Your task to perform on an android device: Open the web browser Image 0: 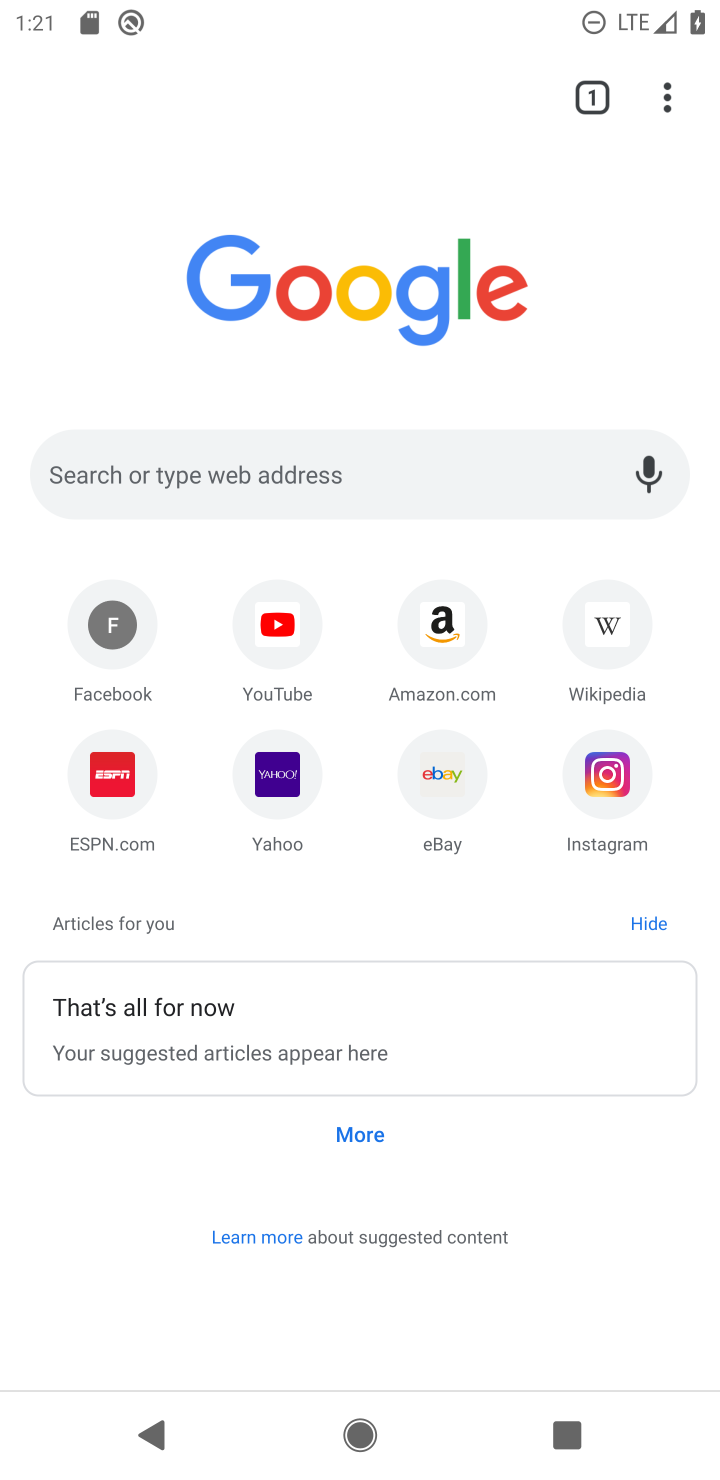
Step 0: click (641, 1217)
Your task to perform on an android device: Open the web browser Image 1: 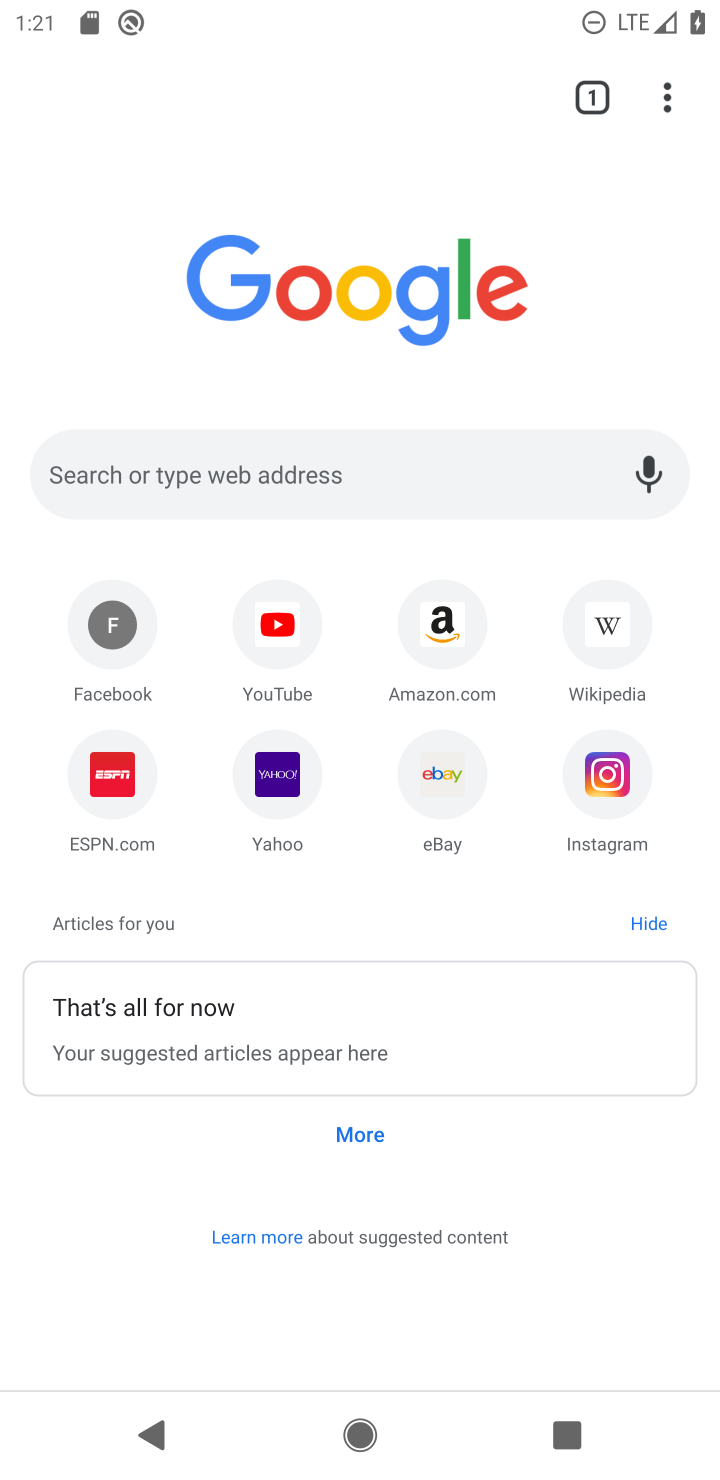
Step 1: press home button
Your task to perform on an android device: Open the web browser Image 2: 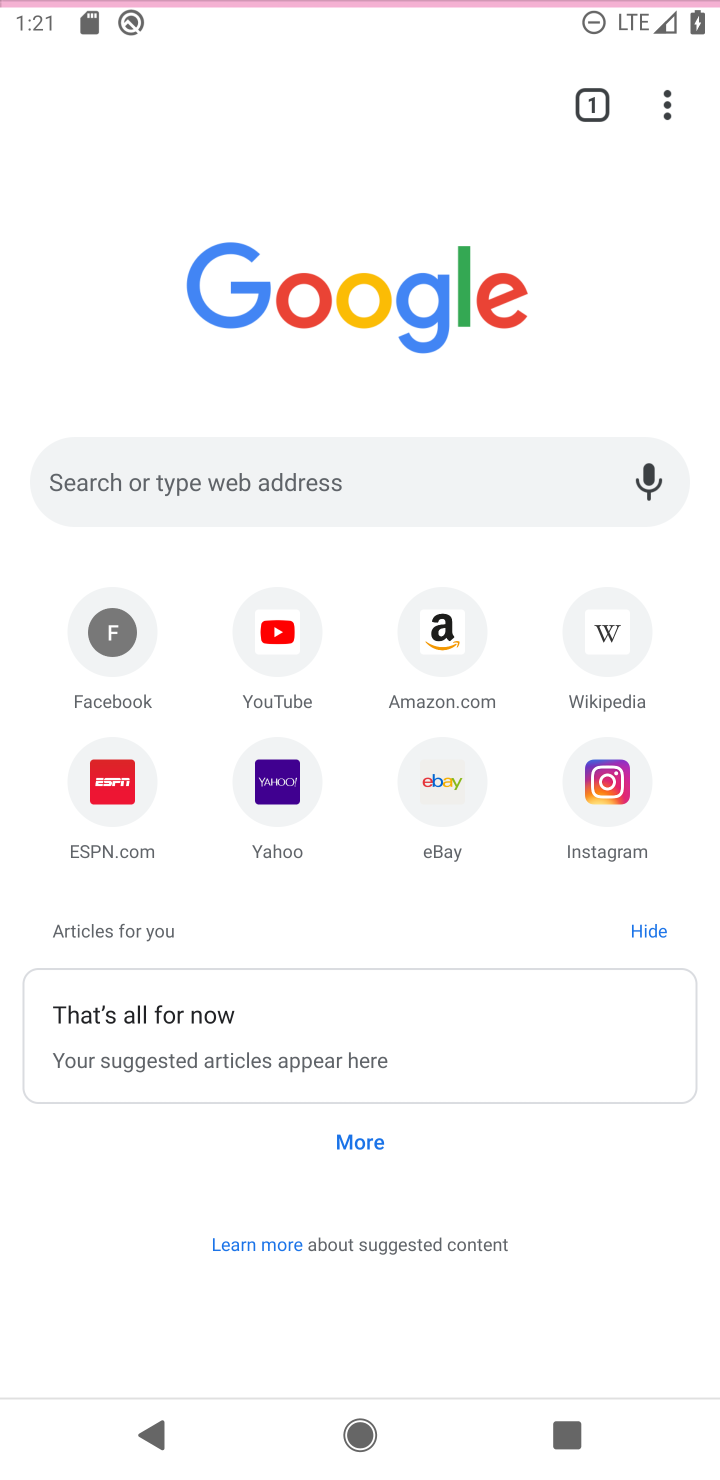
Step 2: drag from (462, 275) to (335, 50)
Your task to perform on an android device: Open the web browser Image 3: 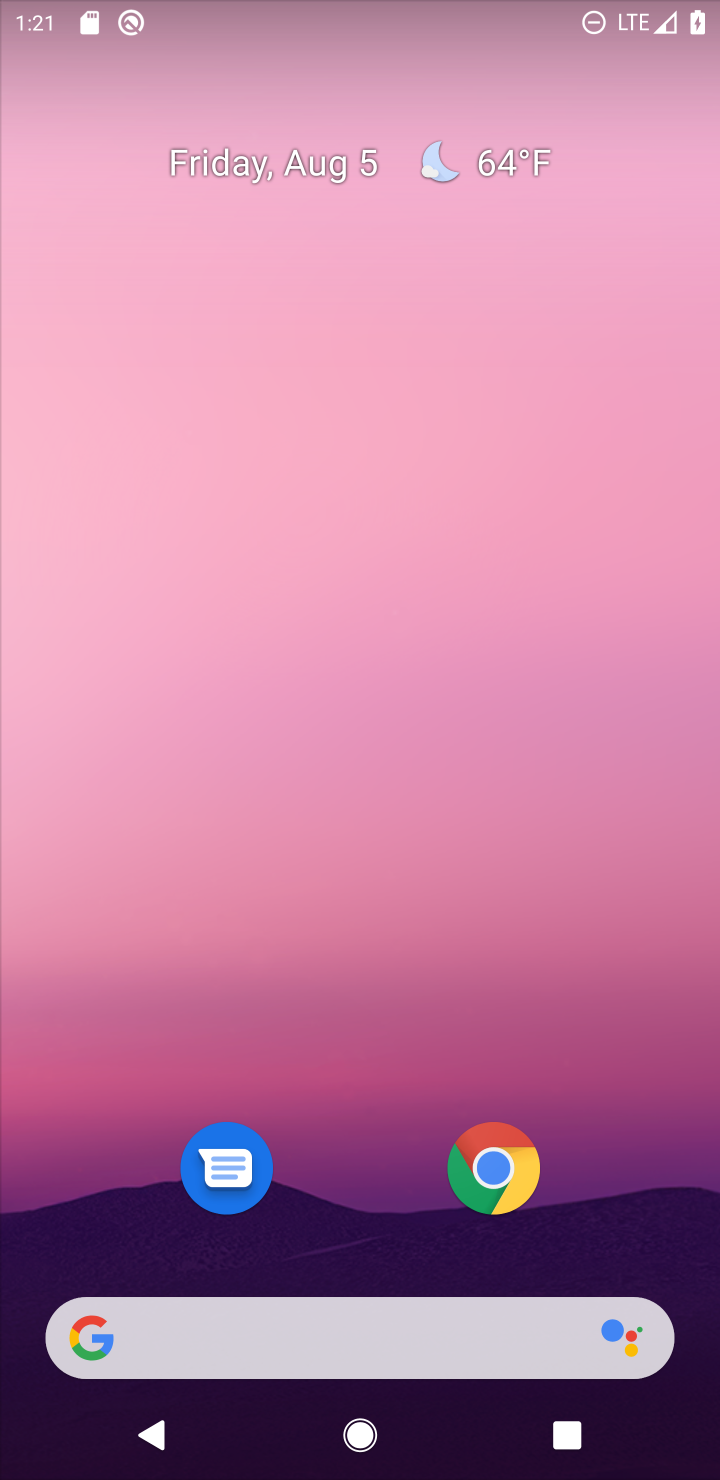
Step 3: drag from (669, 1075) to (350, 58)
Your task to perform on an android device: Open the web browser Image 4: 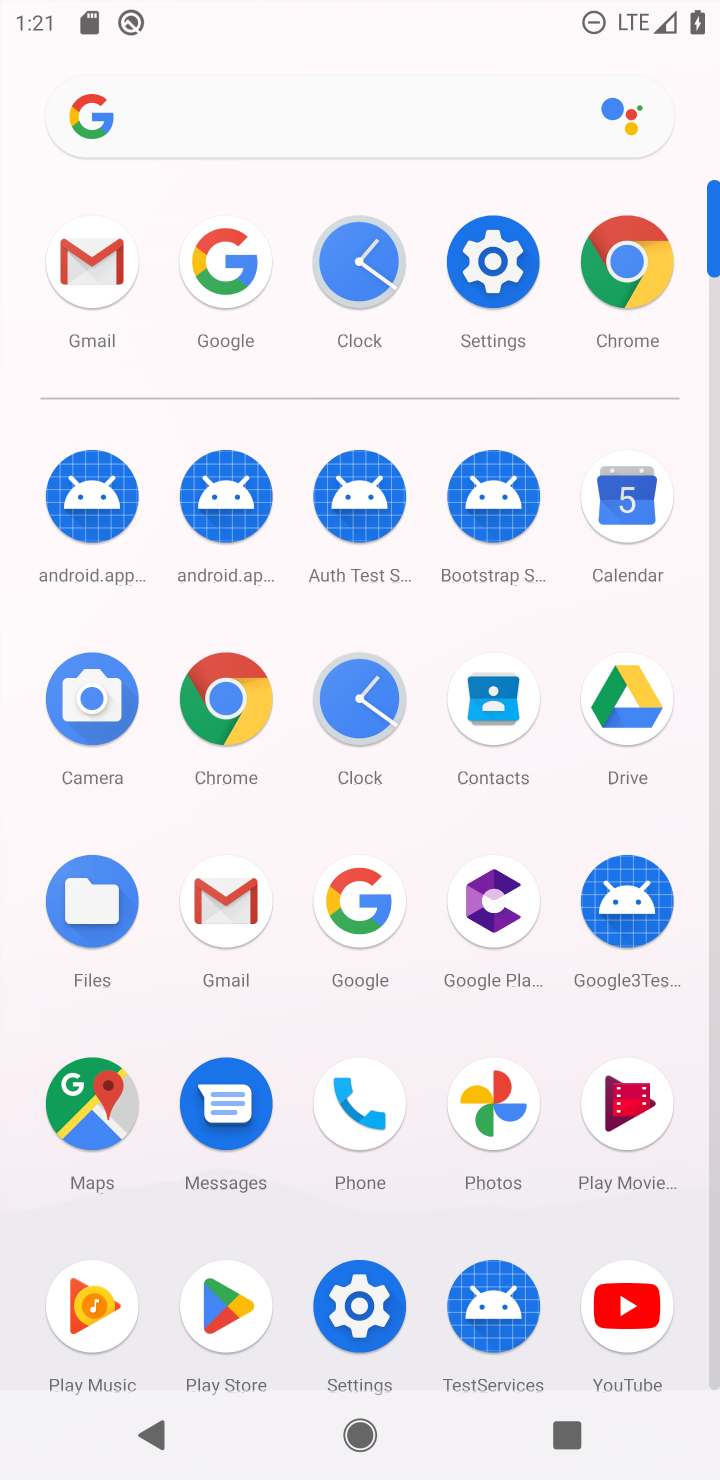
Step 4: click (350, 922)
Your task to perform on an android device: Open the web browser Image 5: 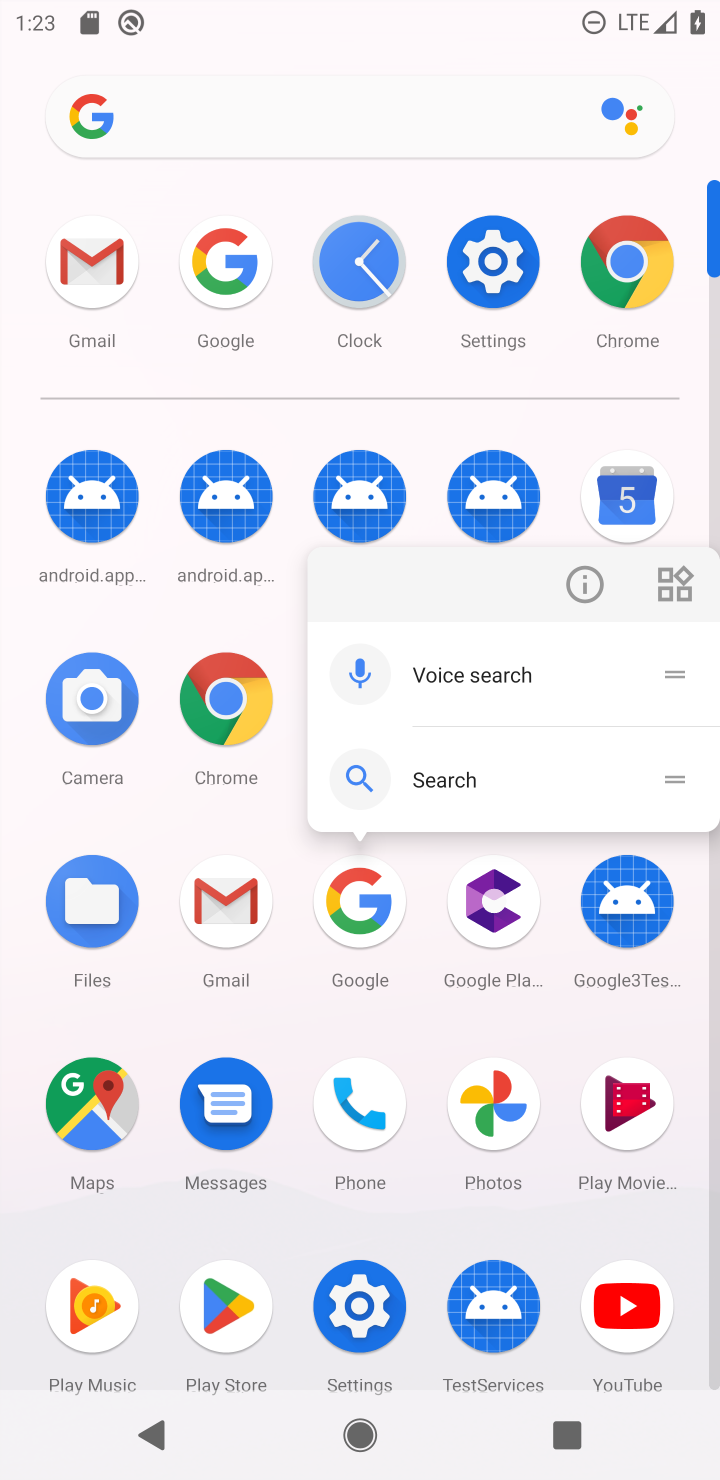
Step 5: click (359, 909)
Your task to perform on an android device: Open the web browser Image 6: 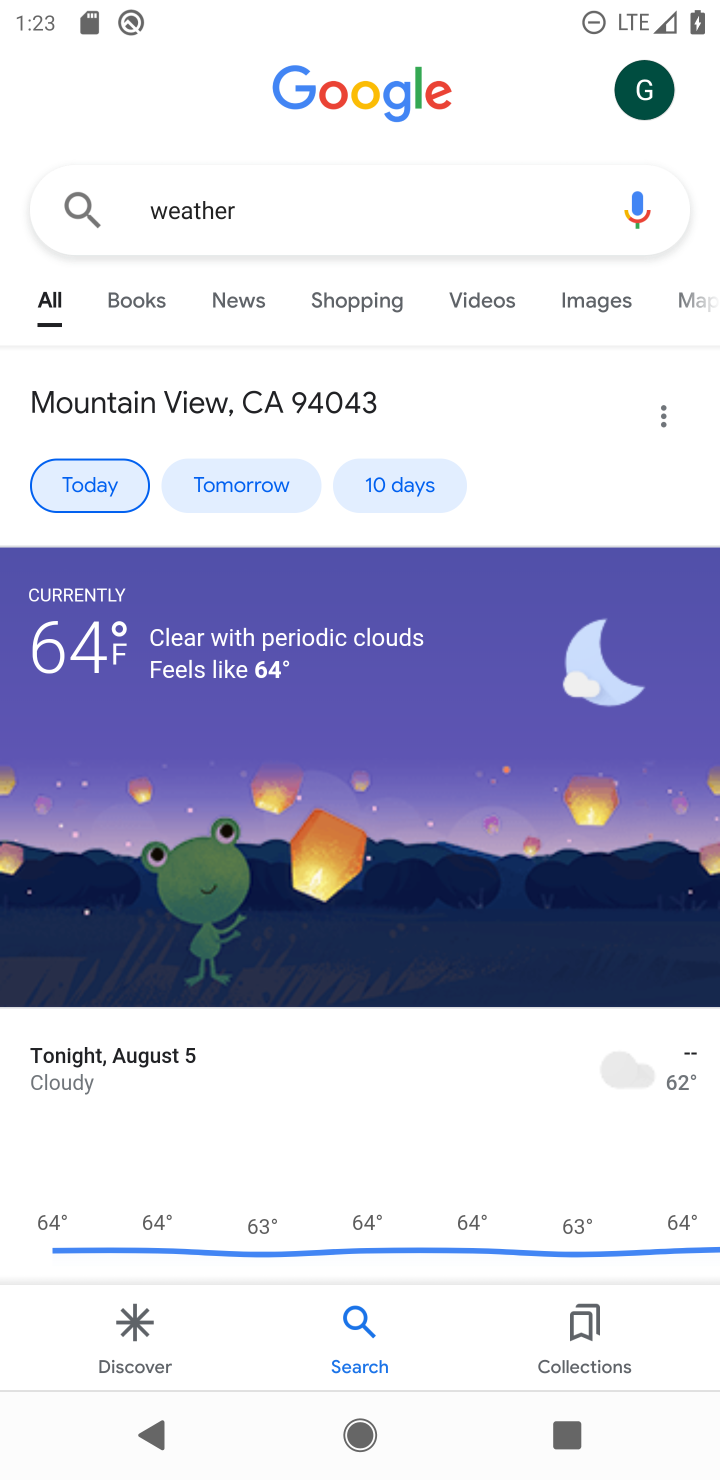
Step 6: press back button
Your task to perform on an android device: Open the web browser Image 7: 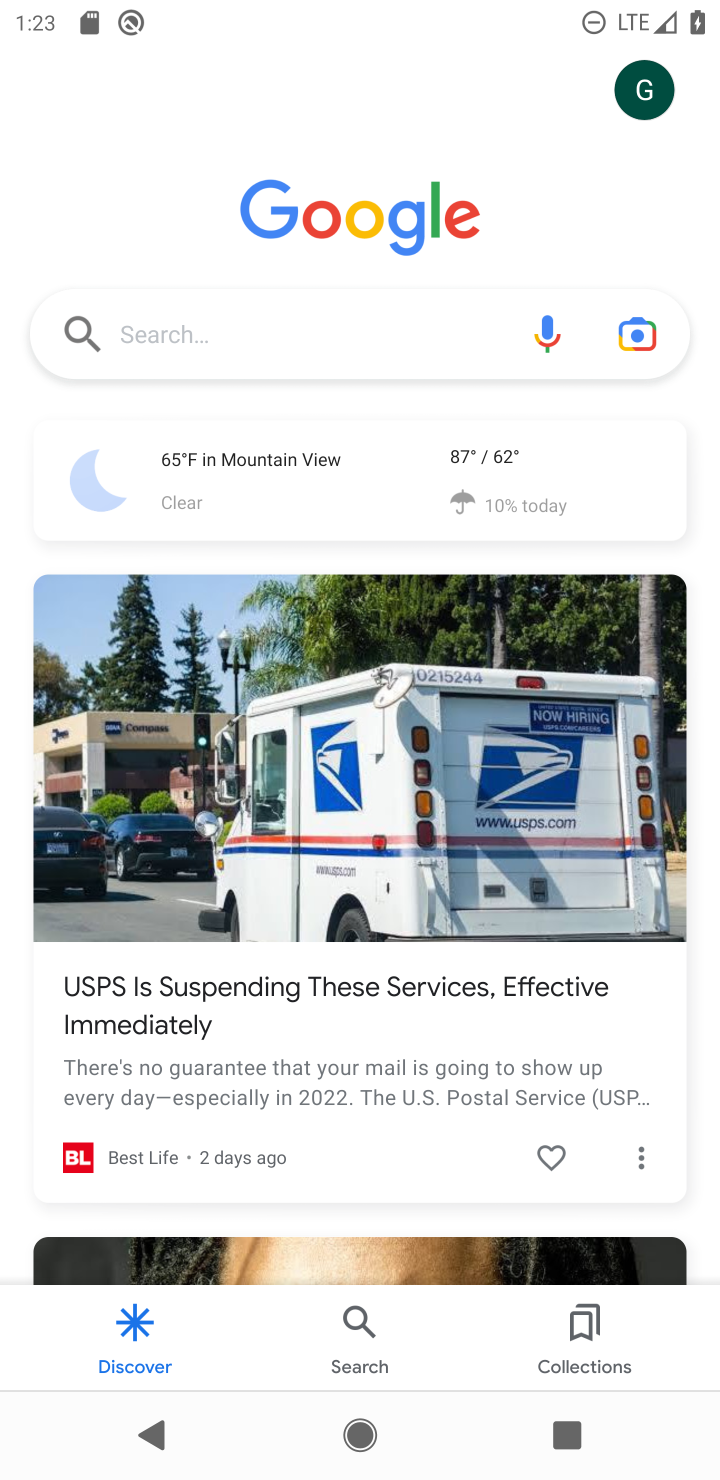
Step 7: click (225, 329)
Your task to perform on an android device: Open the web browser Image 8: 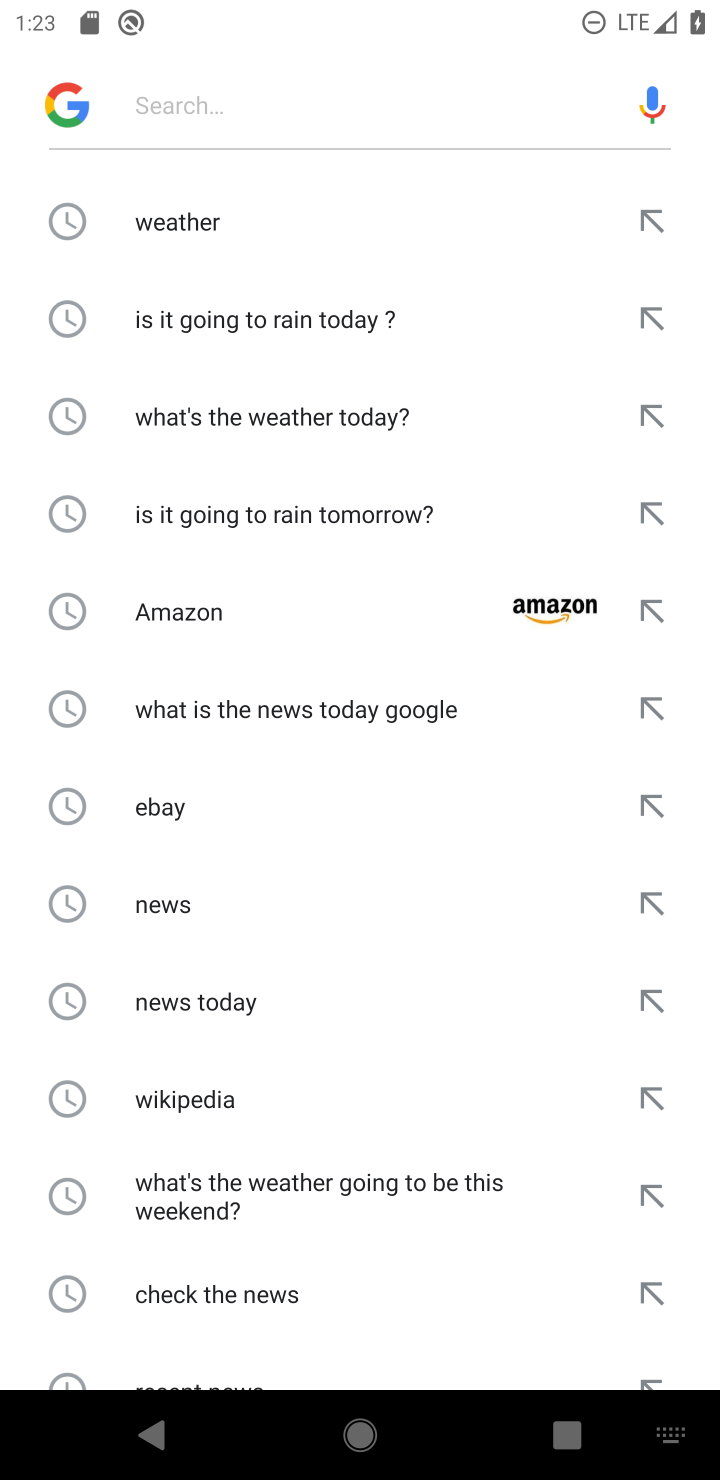
Step 8: type " web browser"
Your task to perform on an android device: Open the web browser Image 9: 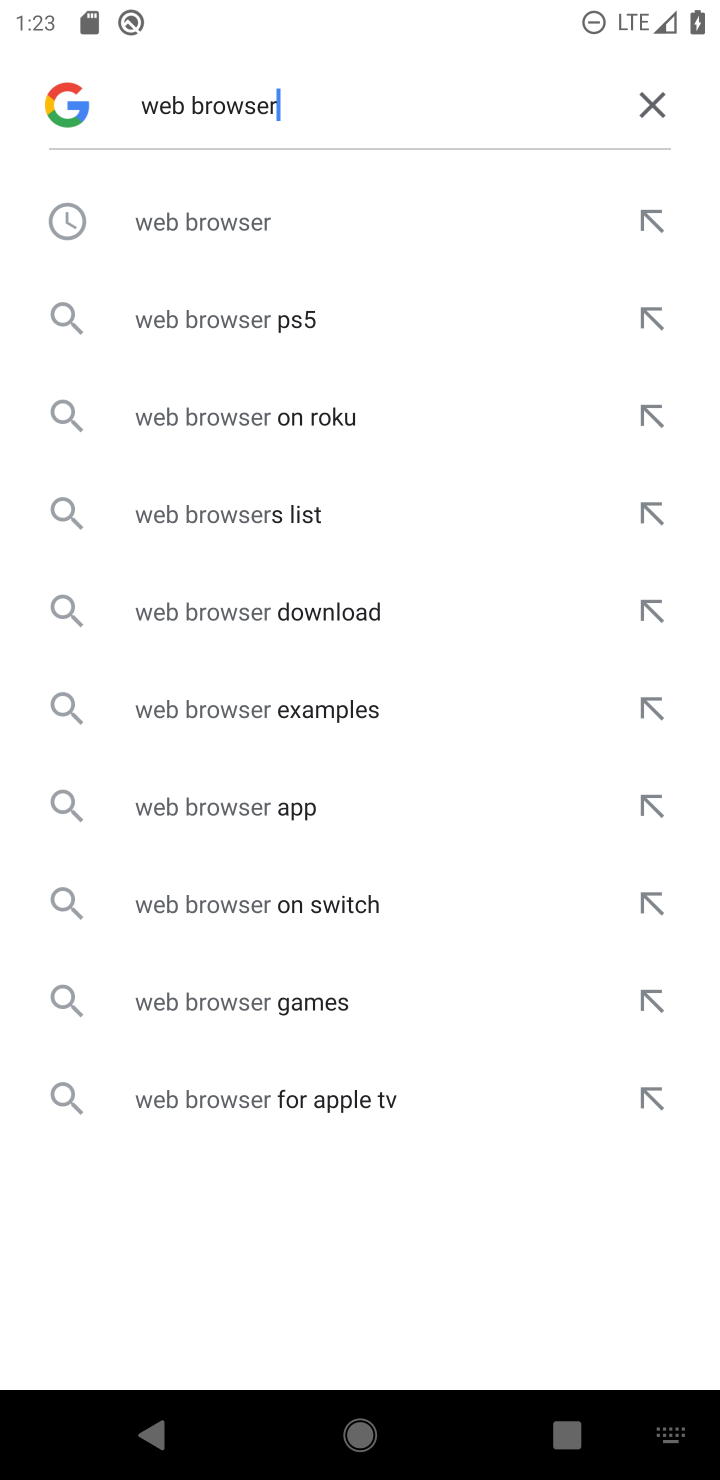
Step 9: click (228, 227)
Your task to perform on an android device: Open the web browser Image 10: 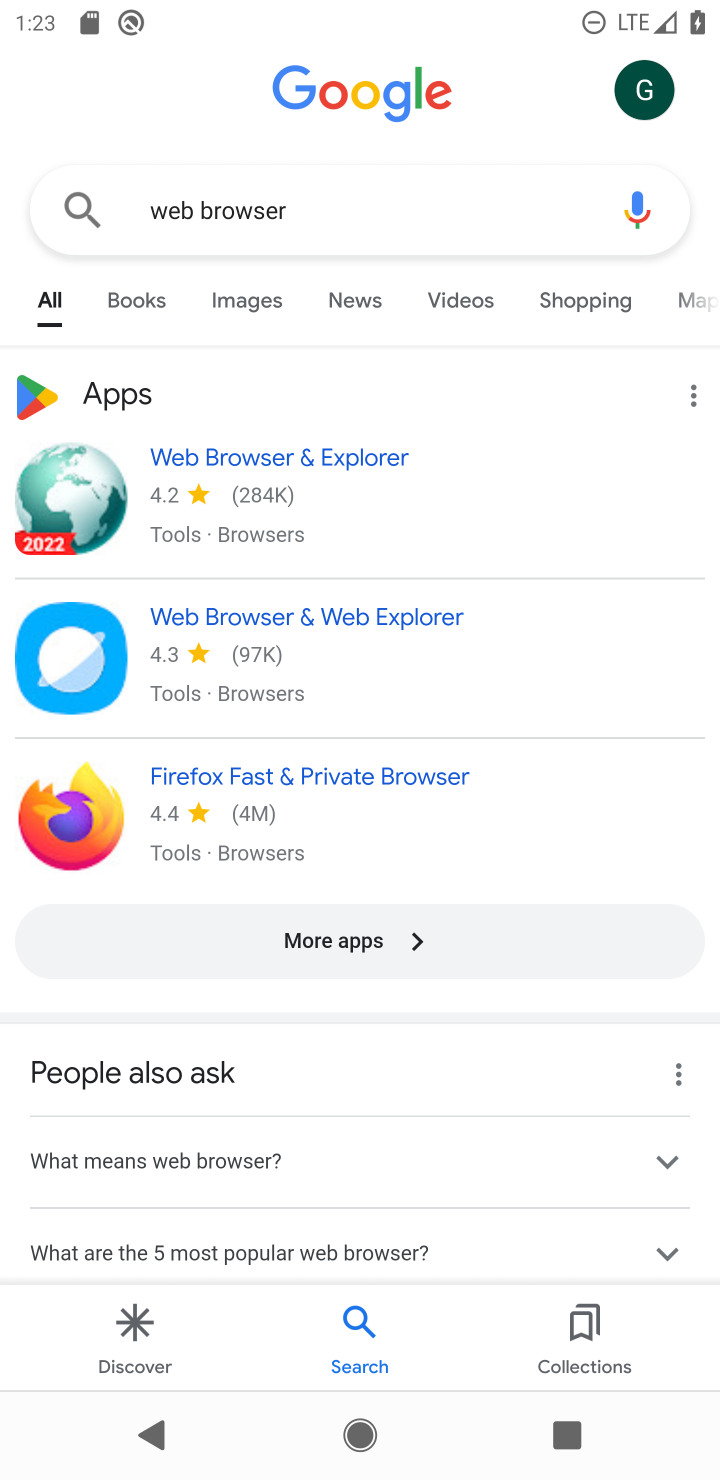
Step 10: task complete